Your task to perform on an android device: What's on my calendar tomorrow? Image 0: 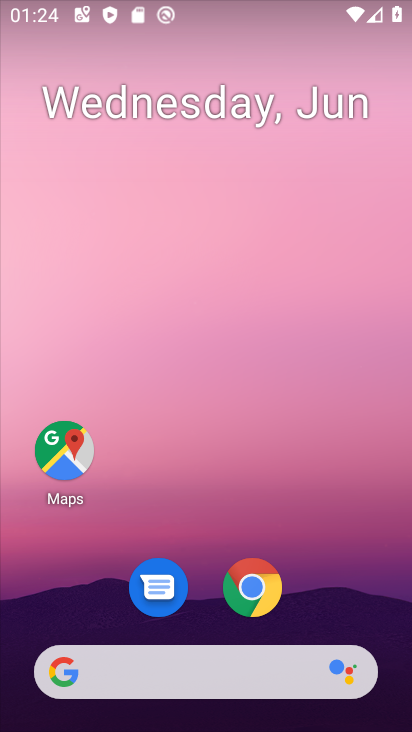
Step 0: drag from (333, 547) to (317, 189)
Your task to perform on an android device: What's on my calendar tomorrow? Image 1: 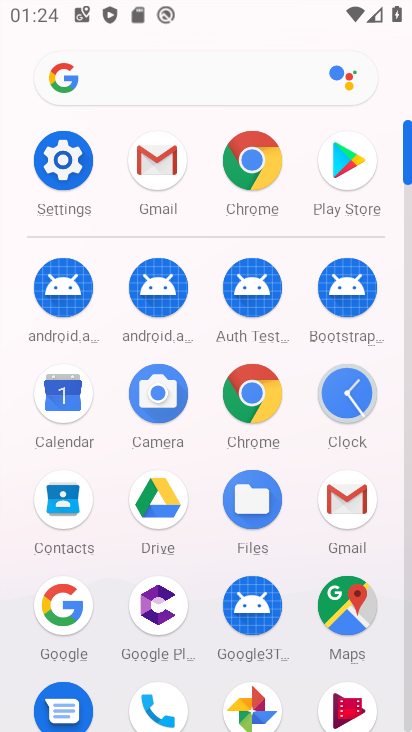
Step 1: click (60, 394)
Your task to perform on an android device: What's on my calendar tomorrow? Image 2: 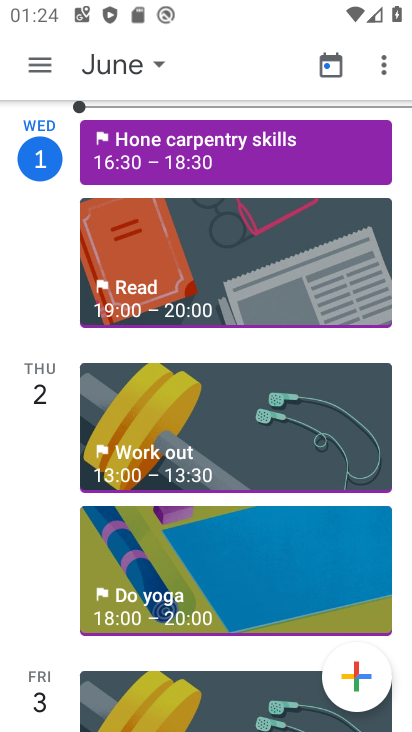
Step 2: drag from (134, 467) to (173, 197)
Your task to perform on an android device: What's on my calendar tomorrow? Image 3: 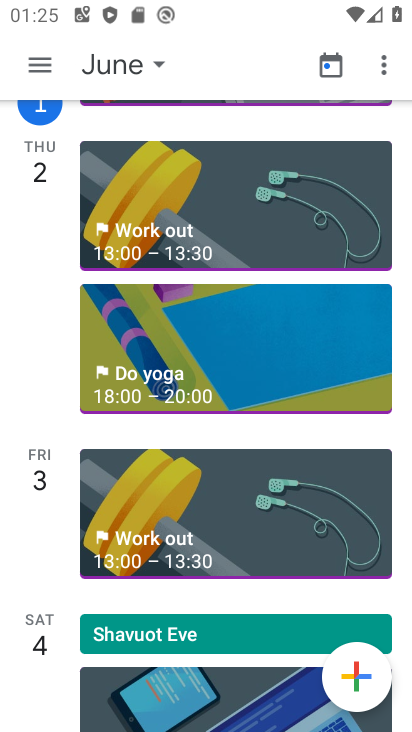
Step 3: click (158, 169)
Your task to perform on an android device: What's on my calendar tomorrow? Image 4: 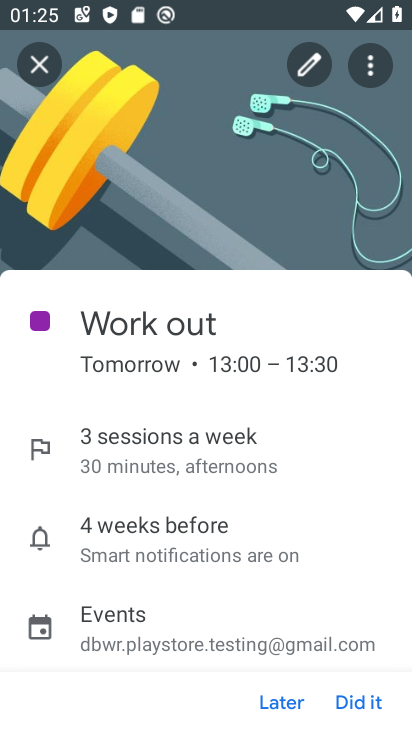
Step 4: click (43, 53)
Your task to perform on an android device: What's on my calendar tomorrow? Image 5: 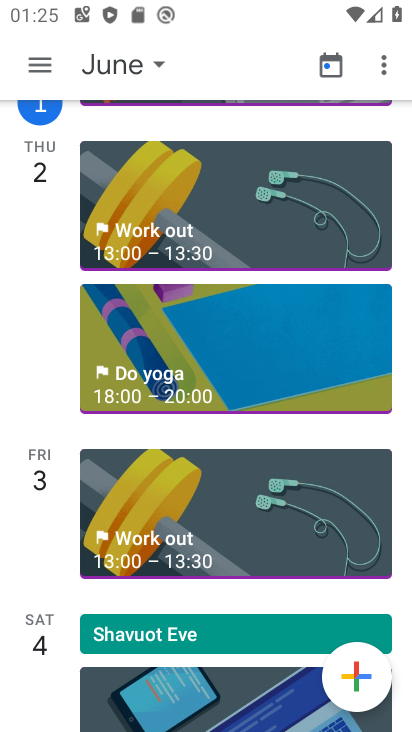
Step 5: click (40, 169)
Your task to perform on an android device: What's on my calendar tomorrow? Image 6: 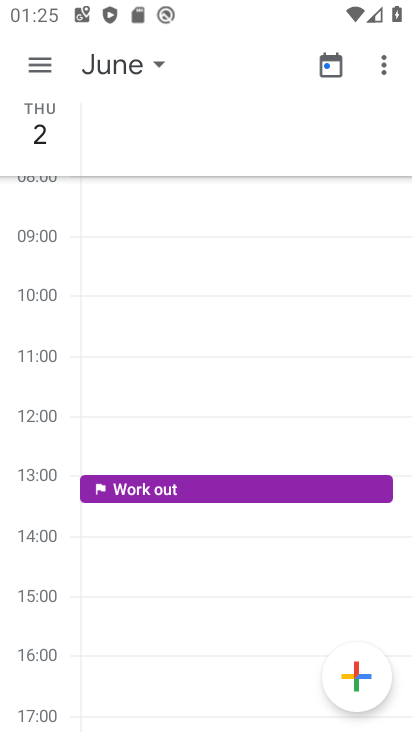
Step 6: task complete